Your task to perform on an android device: Go to battery settings Image 0: 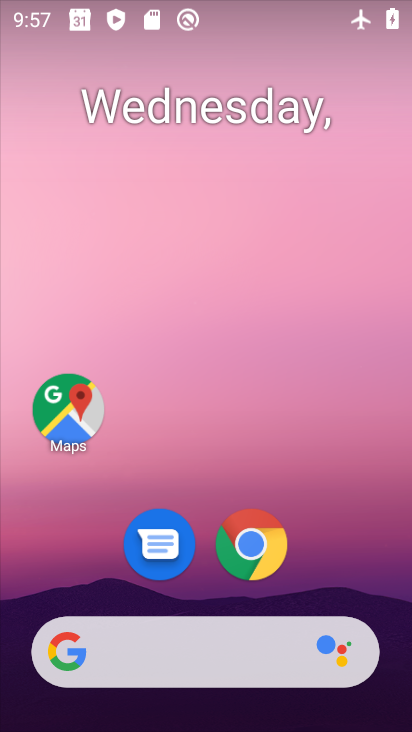
Step 0: drag from (316, 601) to (217, 61)
Your task to perform on an android device: Go to battery settings Image 1: 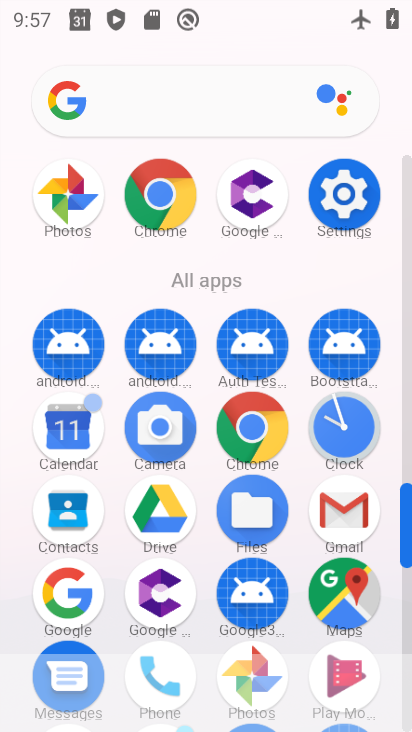
Step 1: click (338, 206)
Your task to perform on an android device: Go to battery settings Image 2: 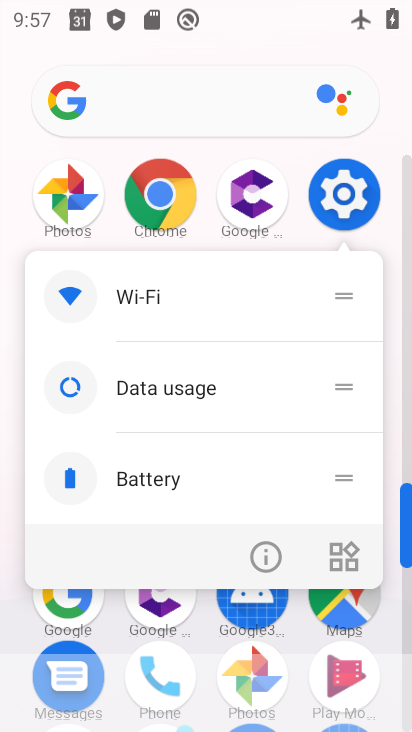
Step 2: click (337, 201)
Your task to perform on an android device: Go to battery settings Image 3: 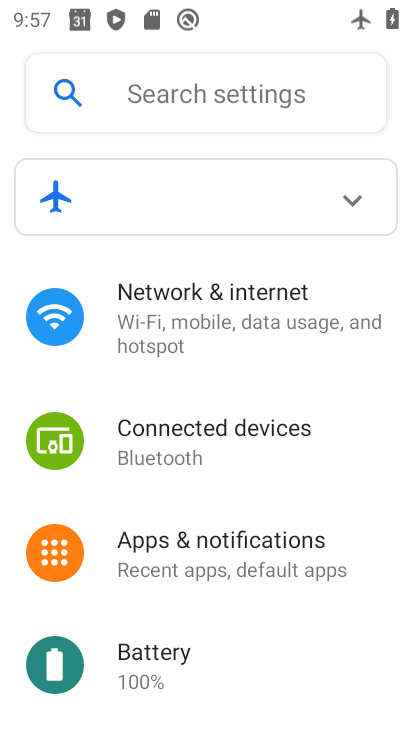
Step 3: click (136, 679)
Your task to perform on an android device: Go to battery settings Image 4: 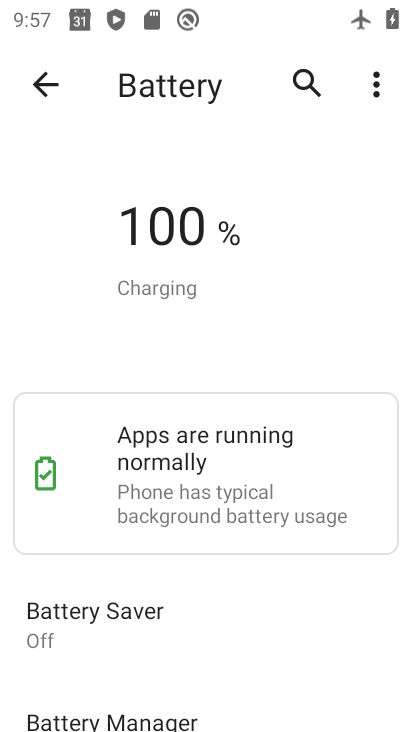
Step 4: task complete